Your task to perform on an android device: Open internet settings Image 0: 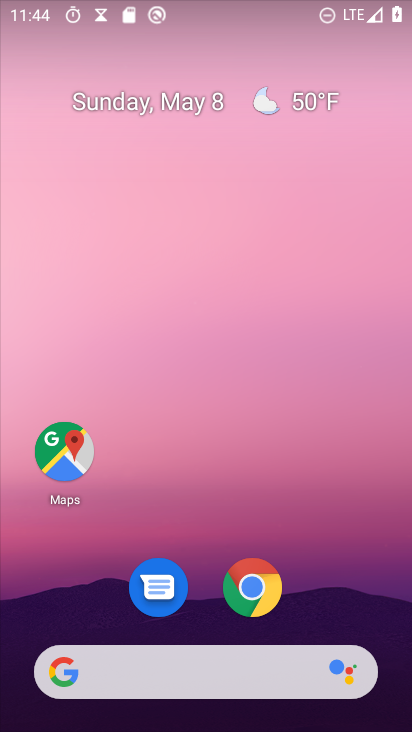
Step 0: drag from (327, 594) to (220, 150)
Your task to perform on an android device: Open internet settings Image 1: 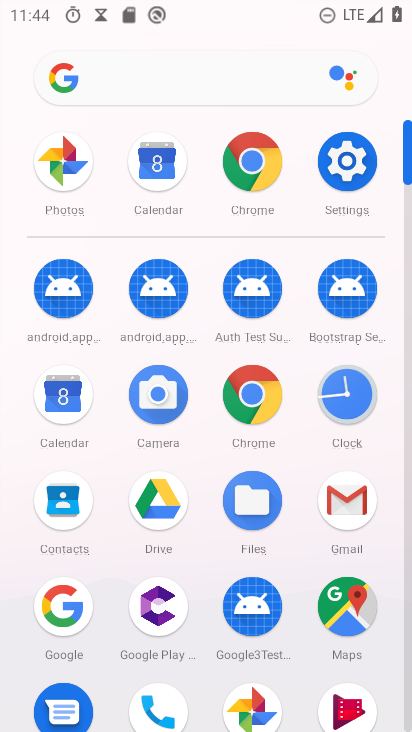
Step 1: click (348, 175)
Your task to perform on an android device: Open internet settings Image 2: 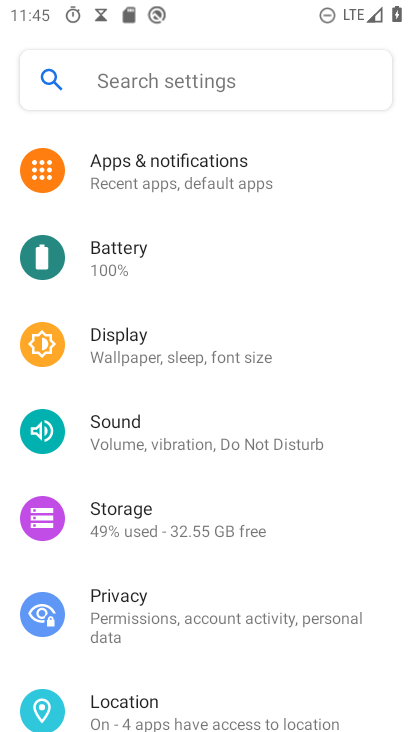
Step 2: drag from (211, 247) to (209, 476)
Your task to perform on an android device: Open internet settings Image 3: 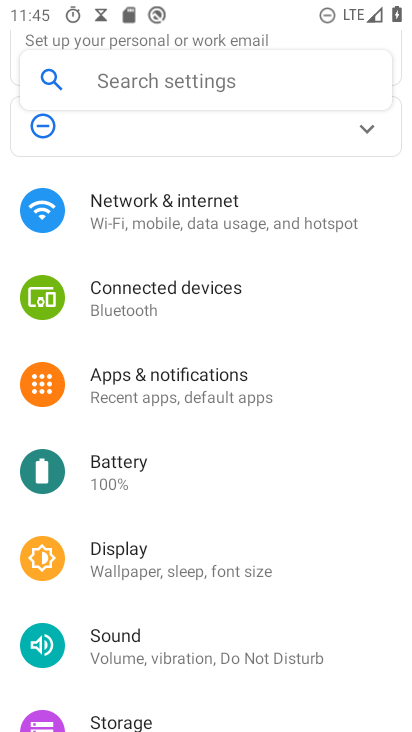
Step 3: click (189, 211)
Your task to perform on an android device: Open internet settings Image 4: 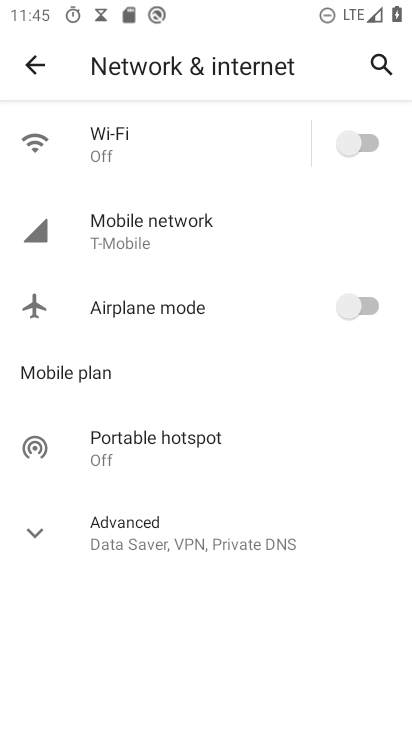
Step 4: task complete